Your task to perform on an android device: Is it going to rain this weekend? Image 0: 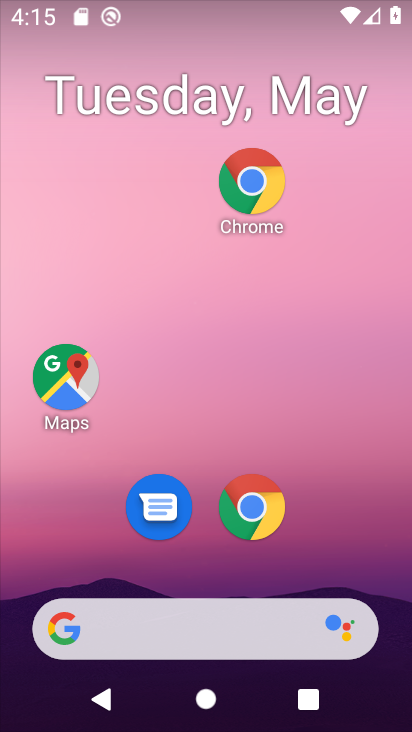
Step 0: drag from (348, 543) to (326, 111)
Your task to perform on an android device: Is it going to rain this weekend? Image 1: 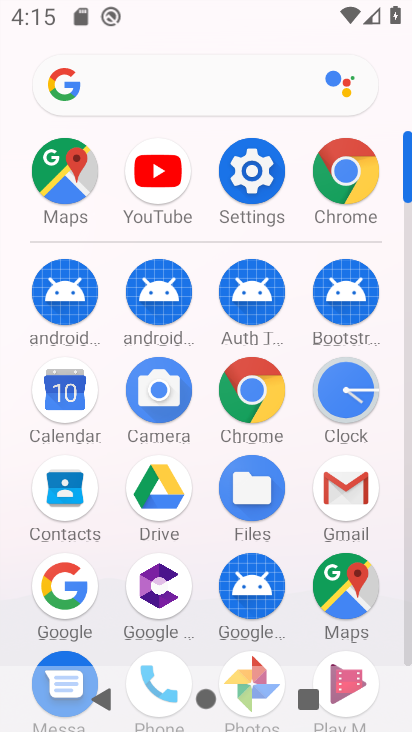
Step 1: press home button
Your task to perform on an android device: Is it going to rain this weekend? Image 2: 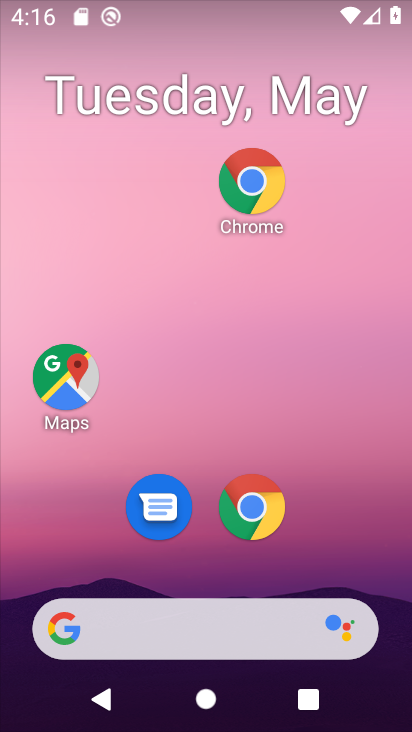
Step 2: click (70, 633)
Your task to perform on an android device: Is it going to rain this weekend? Image 3: 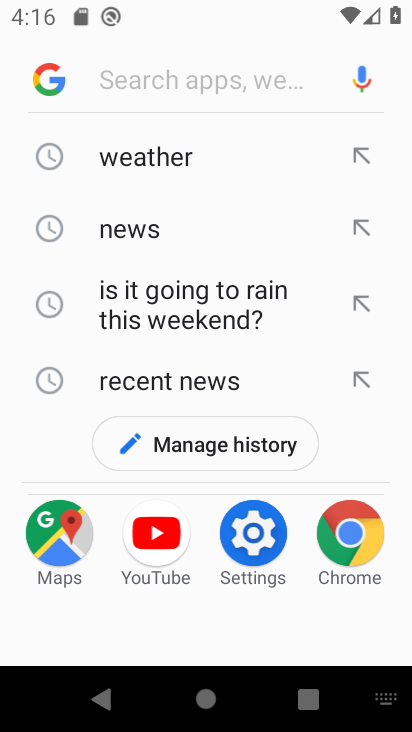
Step 3: click (49, 70)
Your task to perform on an android device: Is it going to rain this weekend? Image 4: 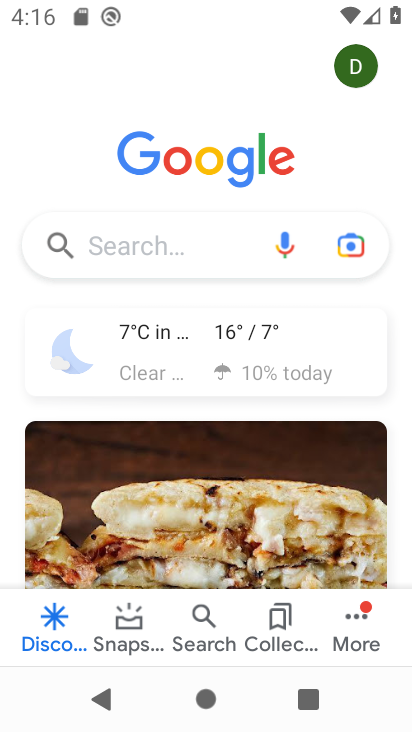
Step 4: click (186, 367)
Your task to perform on an android device: Is it going to rain this weekend? Image 5: 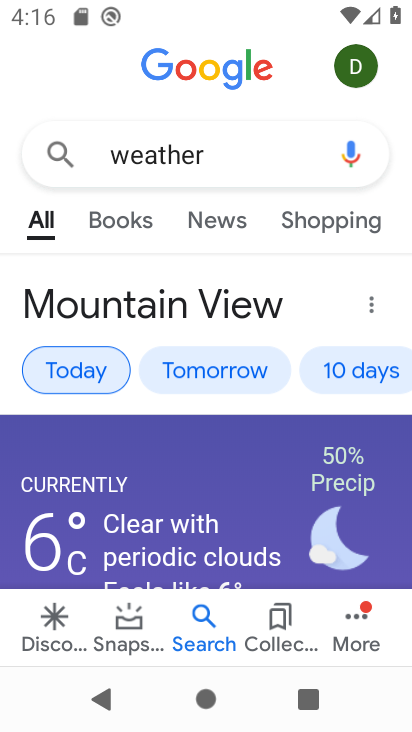
Step 5: click (378, 386)
Your task to perform on an android device: Is it going to rain this weekend? Image 6: 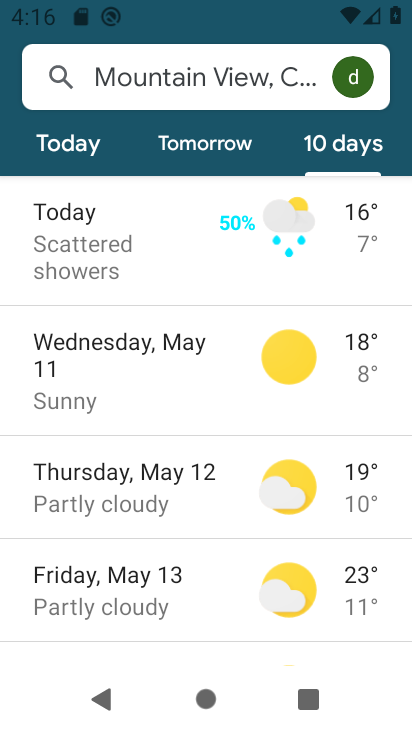
Step 6: task complete